Your task to perform on an android device: set an alarm Image 0: 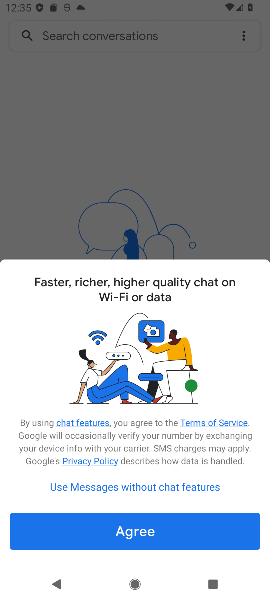
Step 0: press home button
Your task to perform on an android device: set an alarm Image 1: 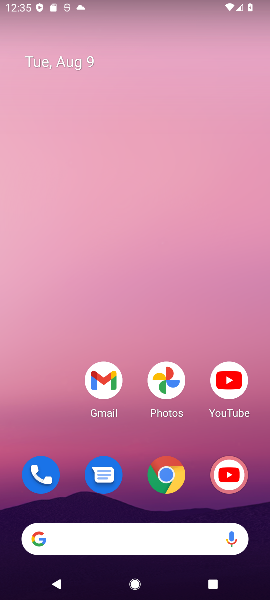
Step 1: drag from (128, 445) to (148, 3)
Your task to perform on an android device: set an alarm Image 2: 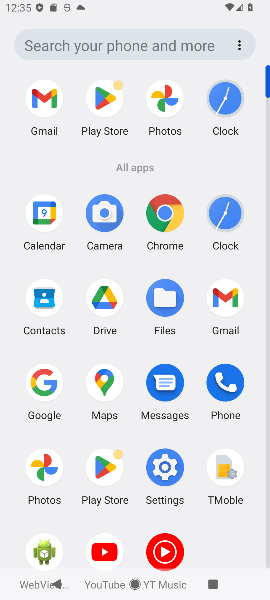
Step 2: click (229, 104)
Your task to perform on an android device: set an alarm Image 3: 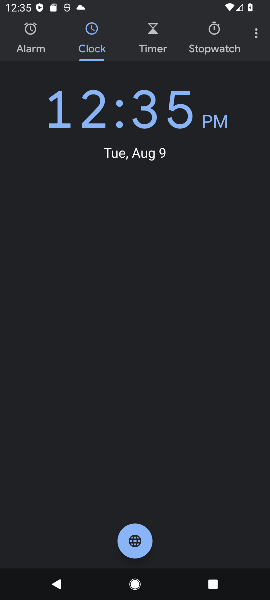
Step 3: click (37, 51)
Your task to perform on an android device: set an alarm Image 4: 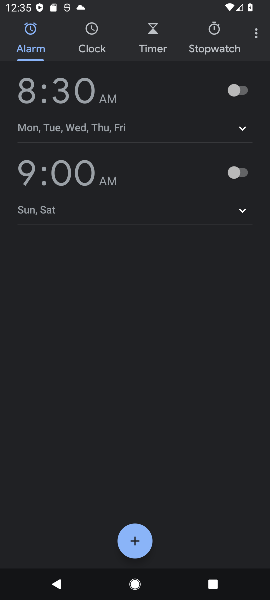
Step 4: click (138, 543)
Your task to perform on an android device: set an alarm Image 5: 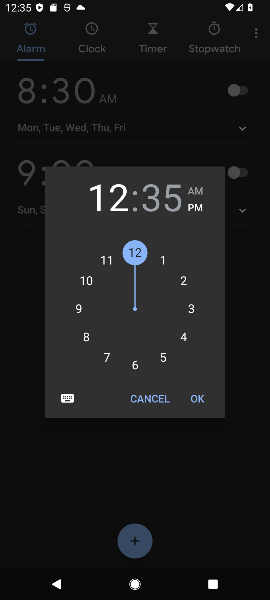
Step 5: click (205, 404)
Your task to perform on an android device: set an alarm Image 6: 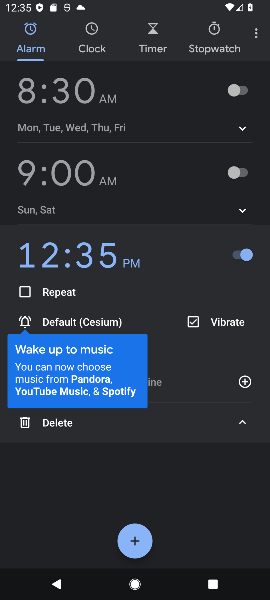
Step 6: task complete